Your task to perform on an android device: Go to settings Image 0: 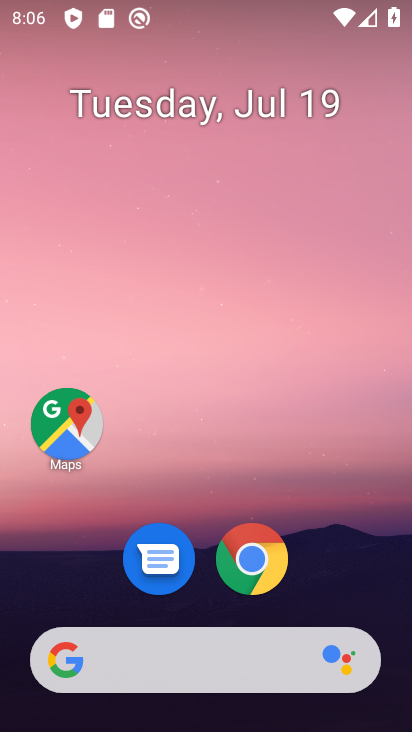
Step 0: drag from (390, 606) to (225, 18)
Your task to perform on an android device: Go to settings Image 1: 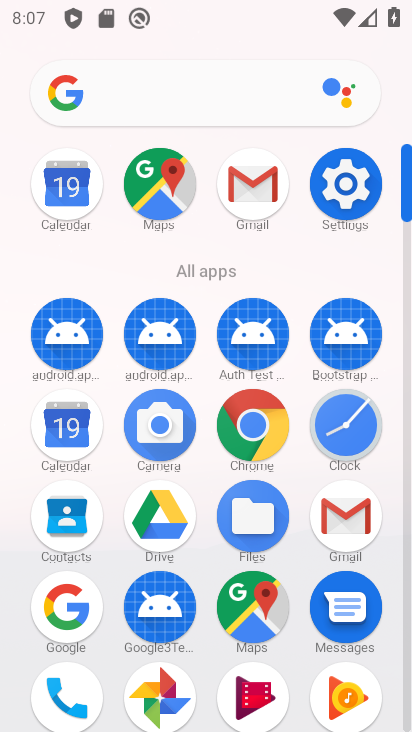
Step 1: click (338, 175)
Your task to perform on an android device: Go to settings Image 2: 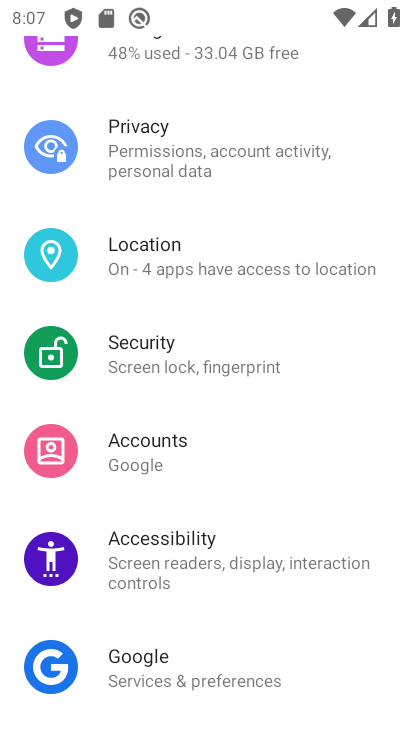
Step 2: task complete